Your task to perform on an android device: Open the calendar app, open the side menu, and click the "Day" option Image 0: 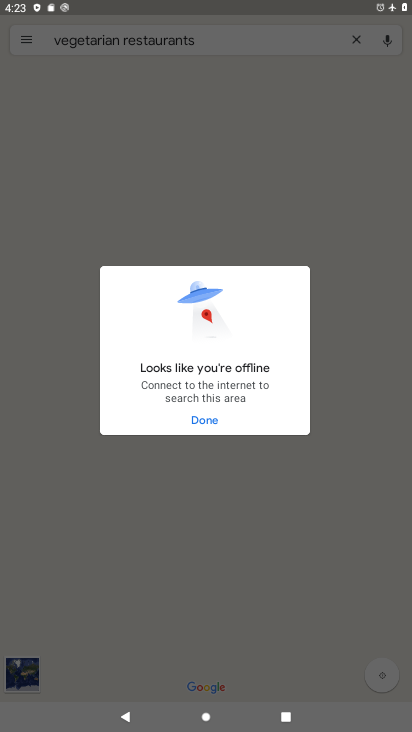
Step 0: press home button
Your task to perform on an android device: Open the calendar app, open the side menu, and click the "Day" option Image 1: 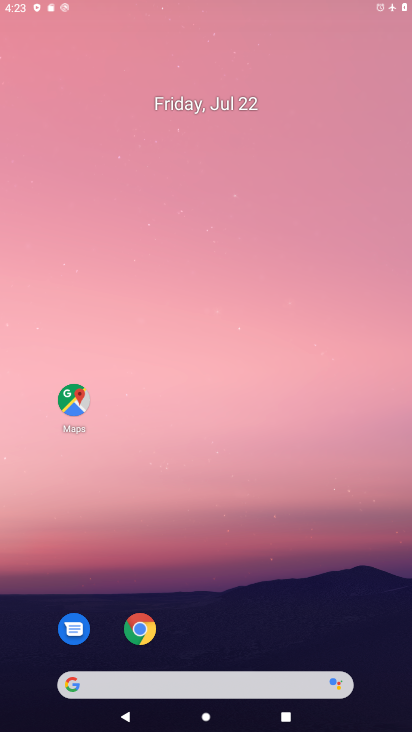
Step 1: drag from (320, 511) to (263, 3)
Your task to perform on an android device: Open the calendar app, open the side menu, and click the "Day" option Image 2: 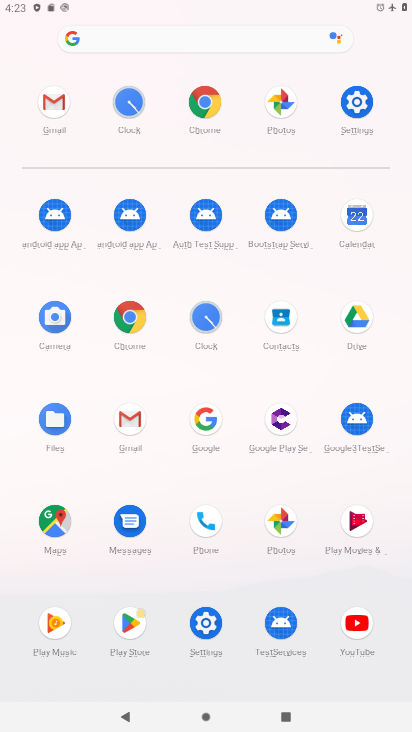
Step 2: click (368, 223)
Your task to perform on an android device: Open the calendar app, open the side menu, and click the "Day" option Image 3: 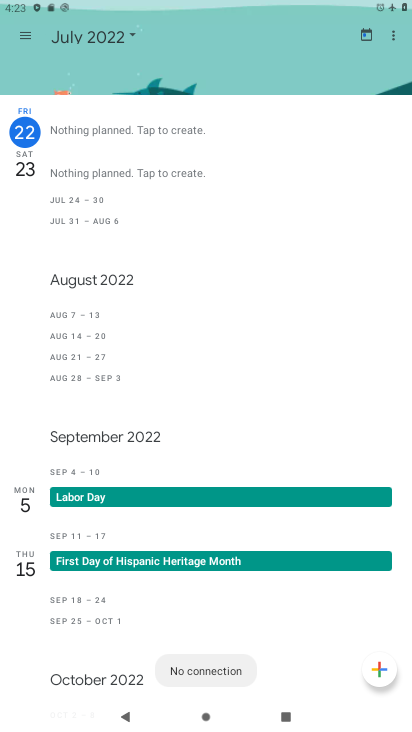
Step 3: click (27, 40)
Your task to perform on an android device: Open the calendar app, open the side menu, and click the "Day" option Image 4: 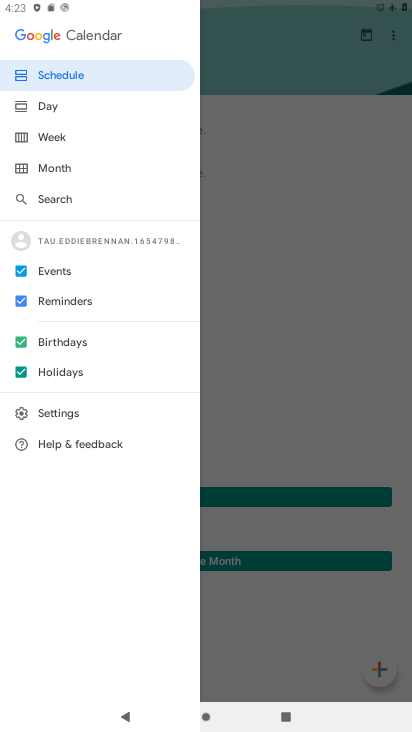
Step 4: click (49, 112)
Your task to perform on an android device: Open the calendar app, open the side menu, and click the "Day" option Image 5: 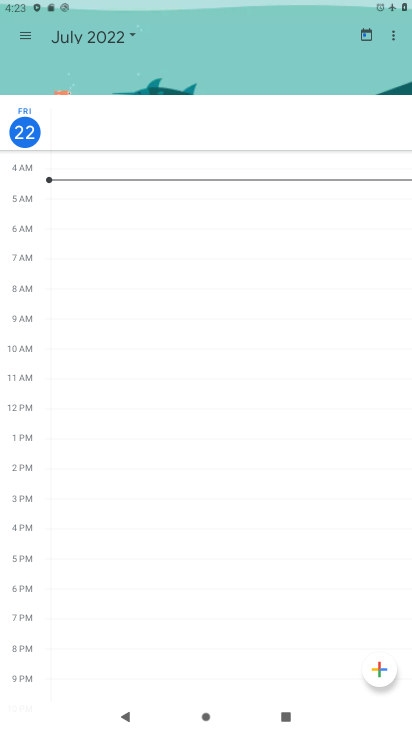
Step 5: task complete